Your task to perform on an android device: Check the news Image 0: 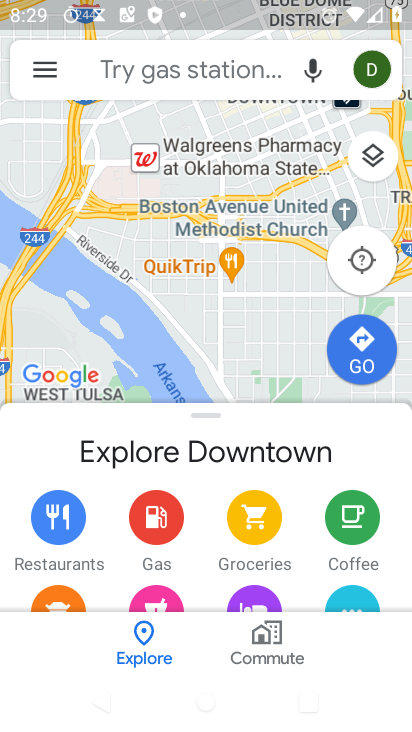
Step 0: press home button
Your task to perform on an android device: Check the news Image 1: 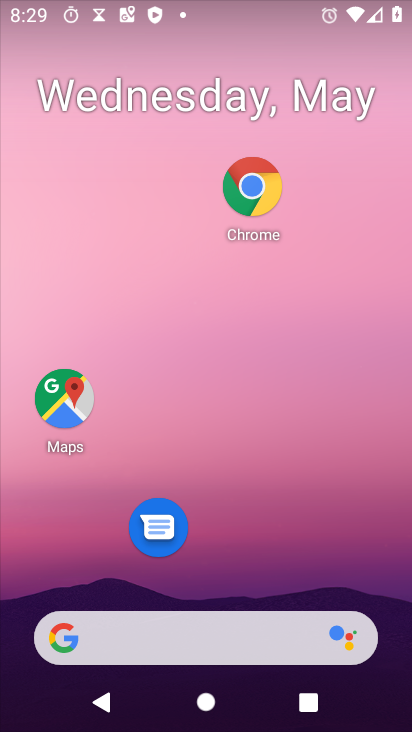
Step 1: drag from (322, 544) to (338, 94)
Your task to perform on an android device: Check the news Image 2: 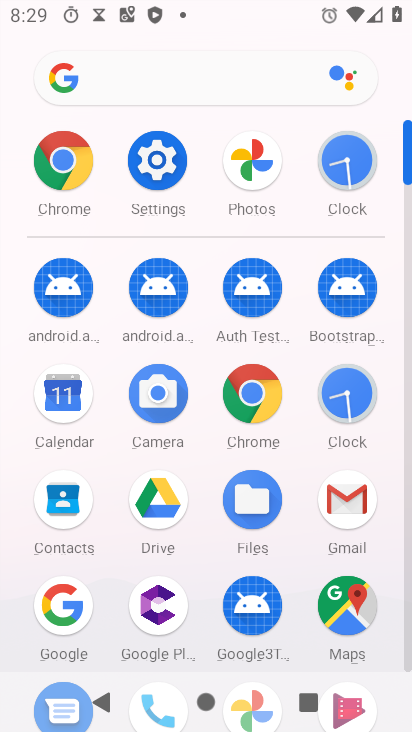
Step 2: click (256, 384)
Your task to perform on an android device: Check the news Image 3: 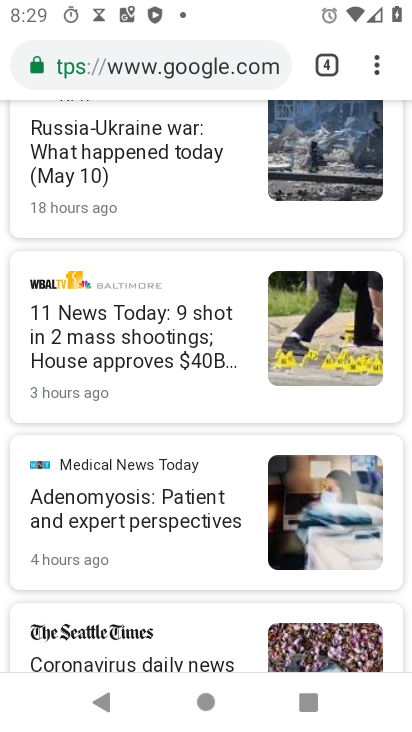
Step 3: click (181, 63)
Your task to perform on an android device: Check the news Image 4: 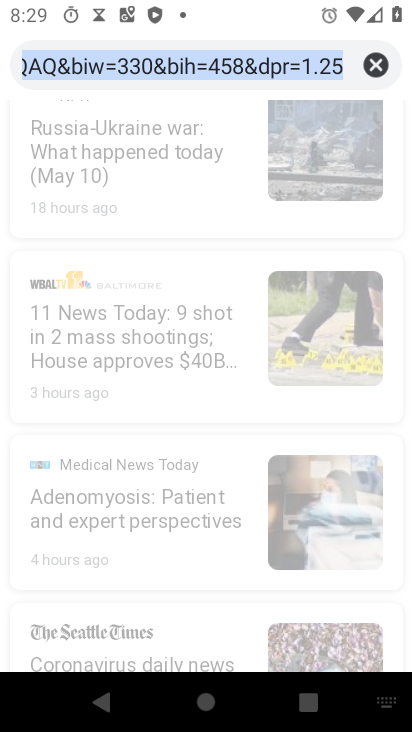
Step 4: click (286, 60)
Your task to perform on an android device: Check the news Image 5: 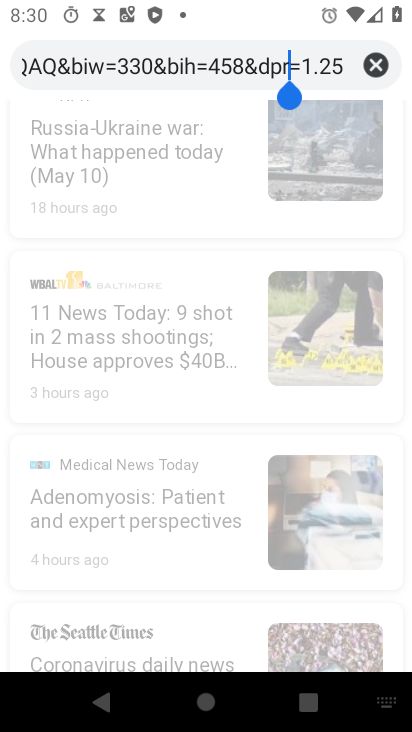
Step 5: click (375, 63)
Your task to perform on an android device: Check the news Image 6: 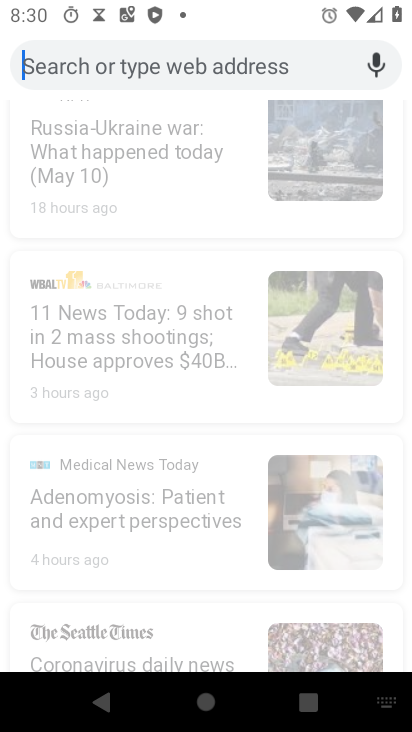
Step 6: type "Check the news"
Your task to perform on an android device: Check the news Image 7: 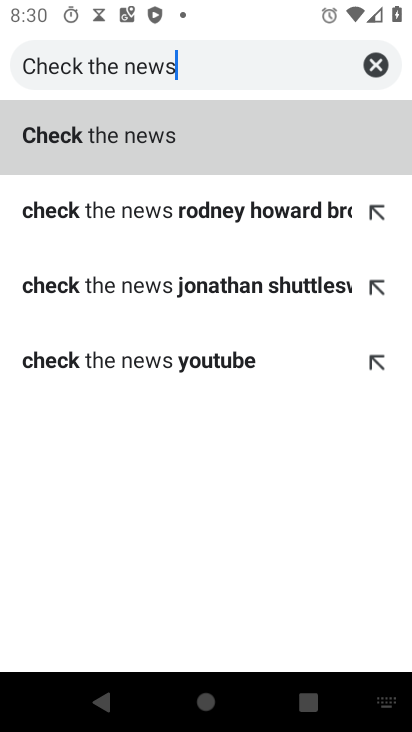
Step 7: click (143, 126)
Your task to perform on an android device: Check the news Image 8: 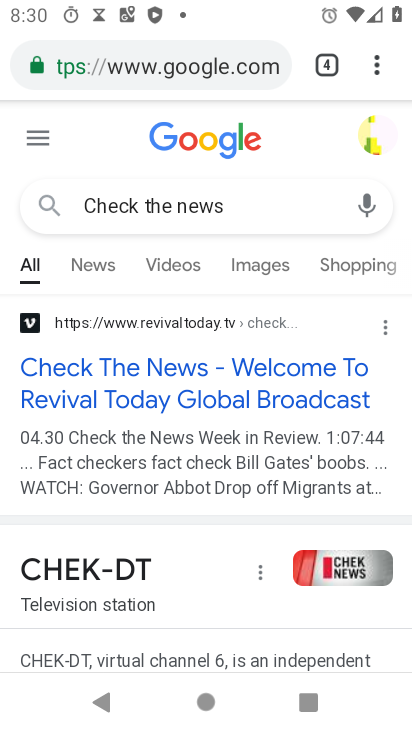
Step 8: click (88, 261)
Your task to perform on an android device: Check the news Image 9: 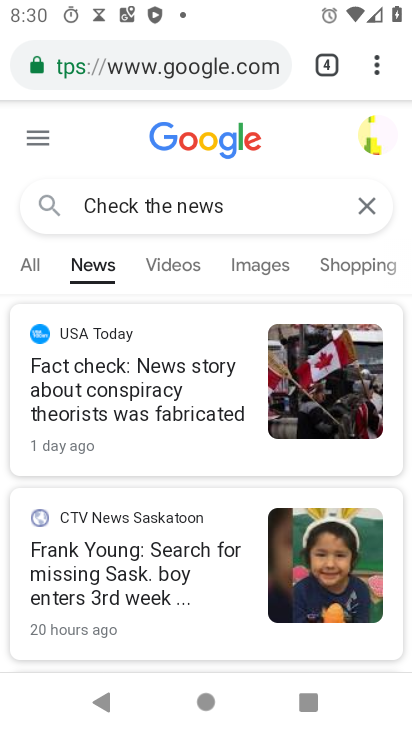
Step 9: task complete